Your task to perform on an android device: What is the news today? Image 0: 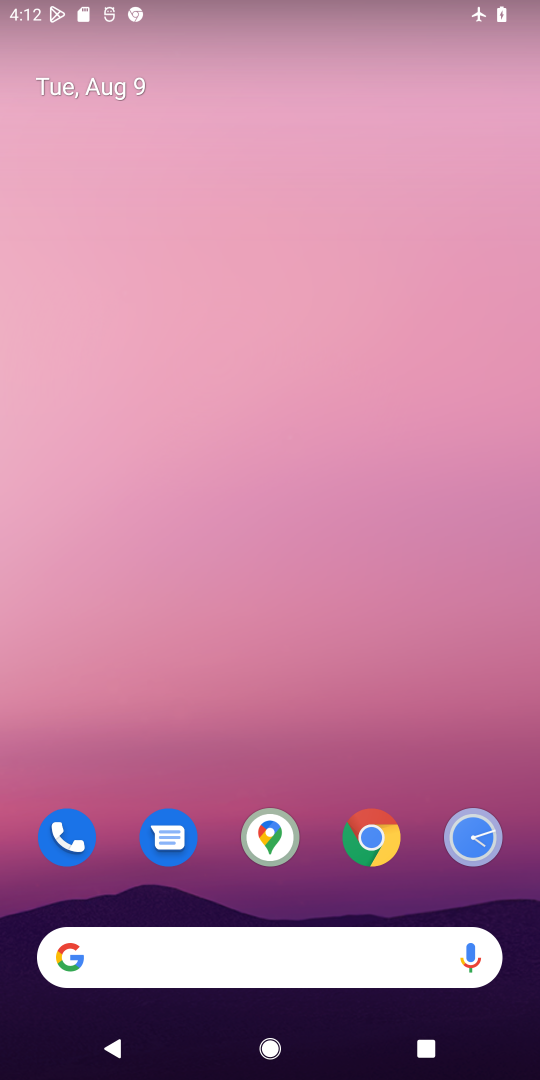
Step 0: drag from (247, 851) to (342, 224)
Your task to perform on an android device: What is the news today? Image 1: 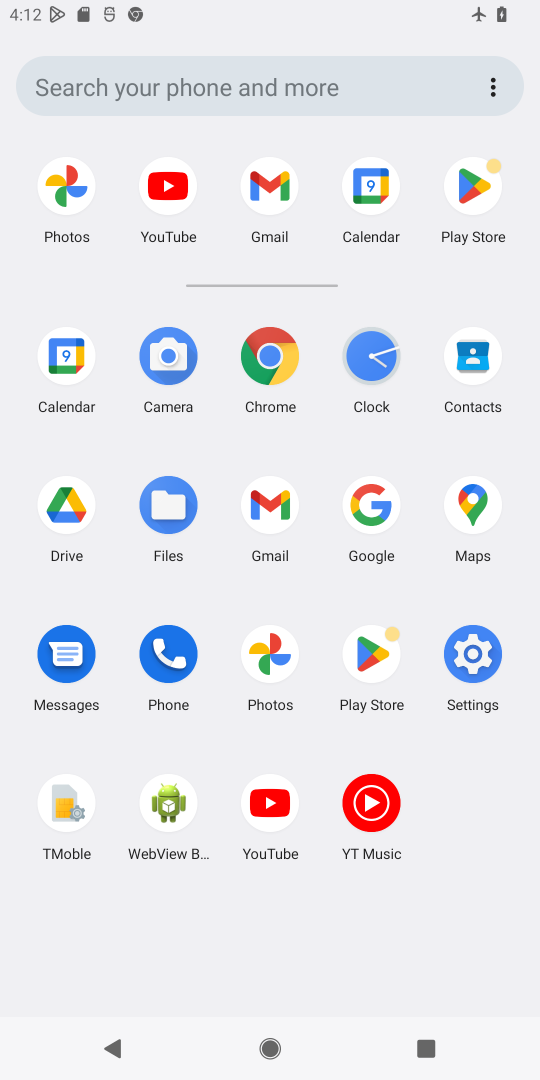
Step 1: click (277, 361)
Your task to perform on an android device: What is the news today? Image 2: 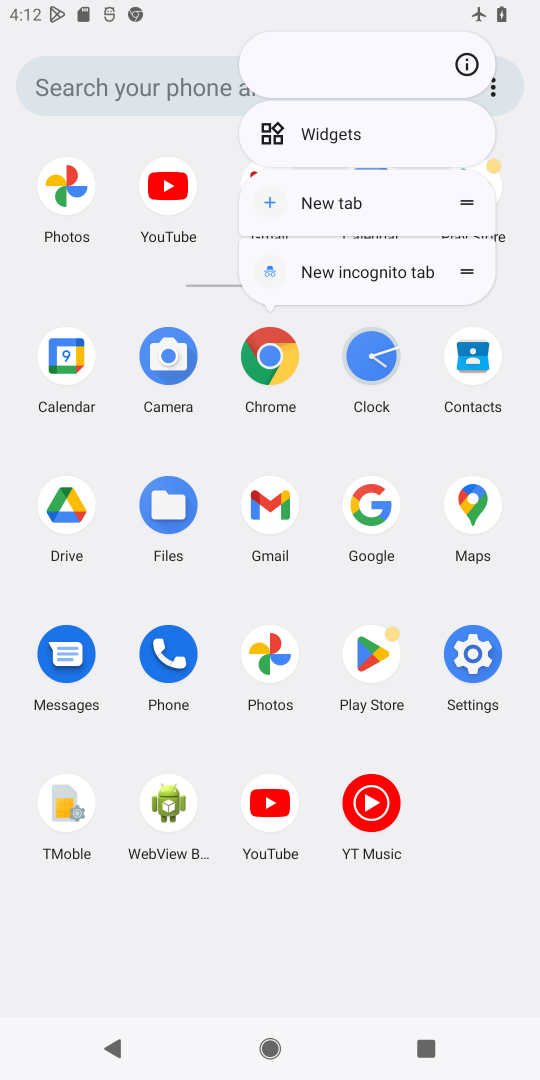
Step 2: click (277, 361)
Your task to perform on an android device: What is the news today? Image 3: 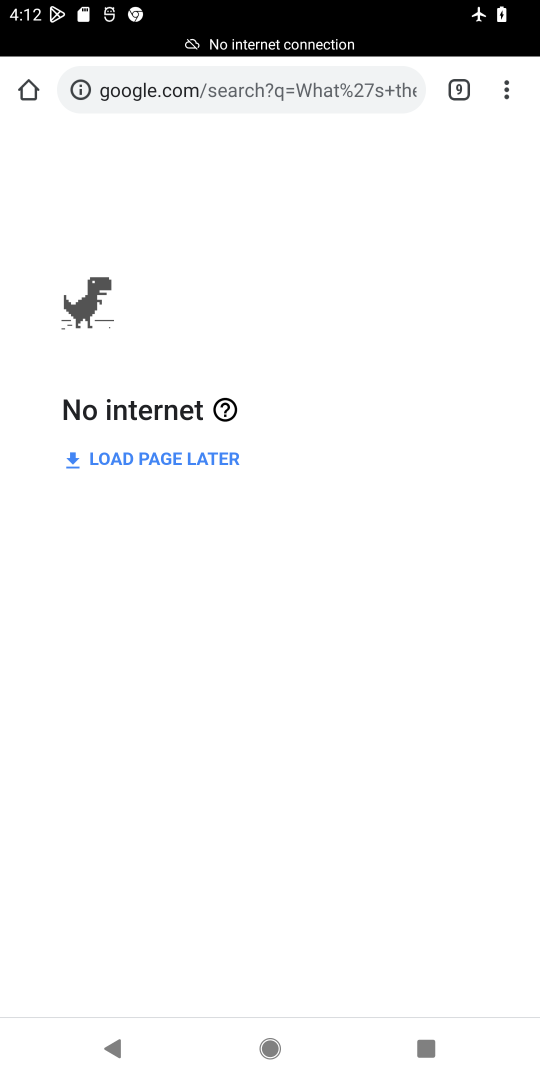
Step 3: click (516, 82)
Your task to perform on an android device: What is the news today? Image 4: 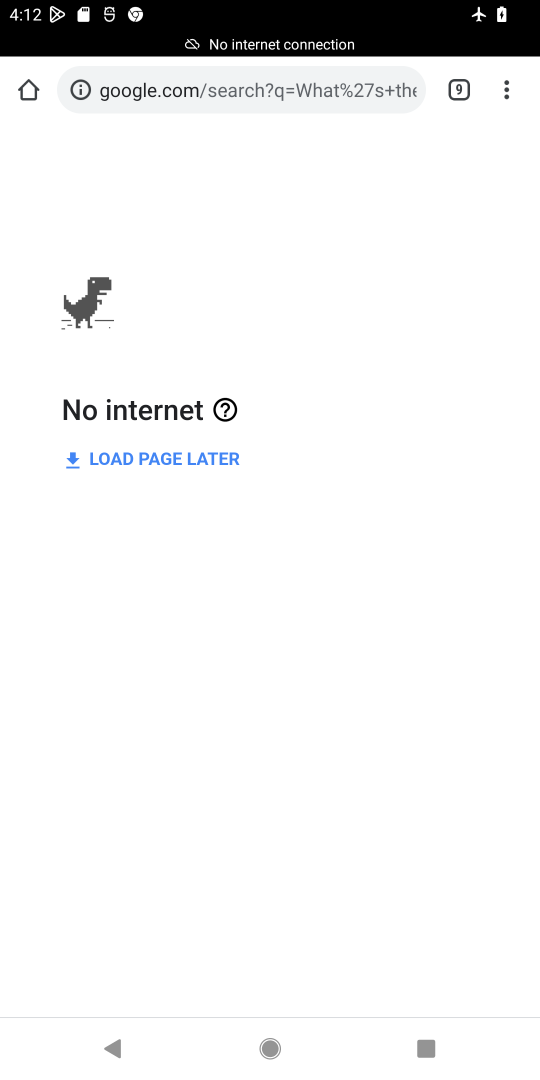
Step 4: click (502, 100)
Your task to perform on an android device: What is the news today? Image 5: 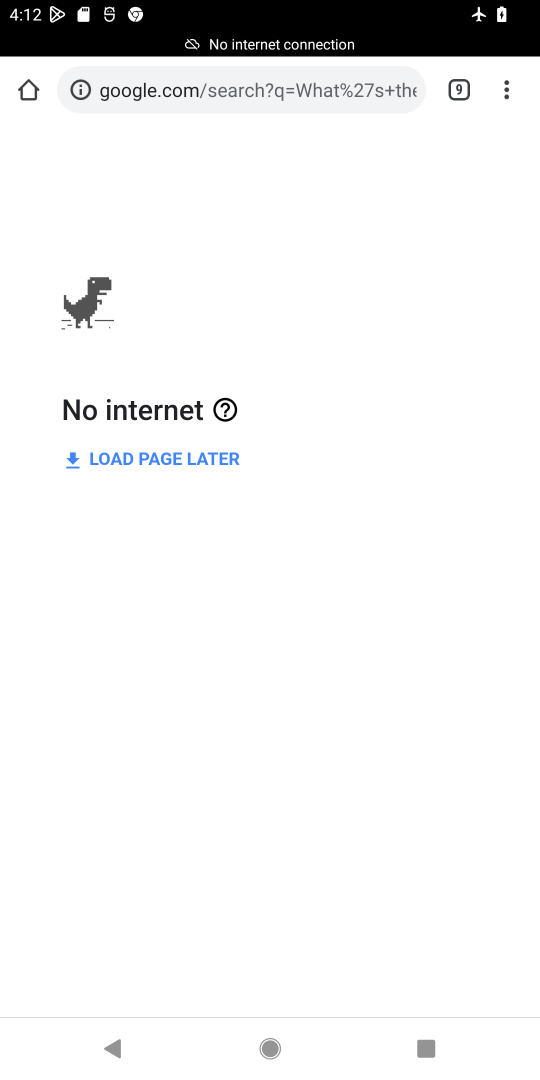
Step 5: click (502, 100)
Your task to perform on an android device: What is the news today? Image 6: 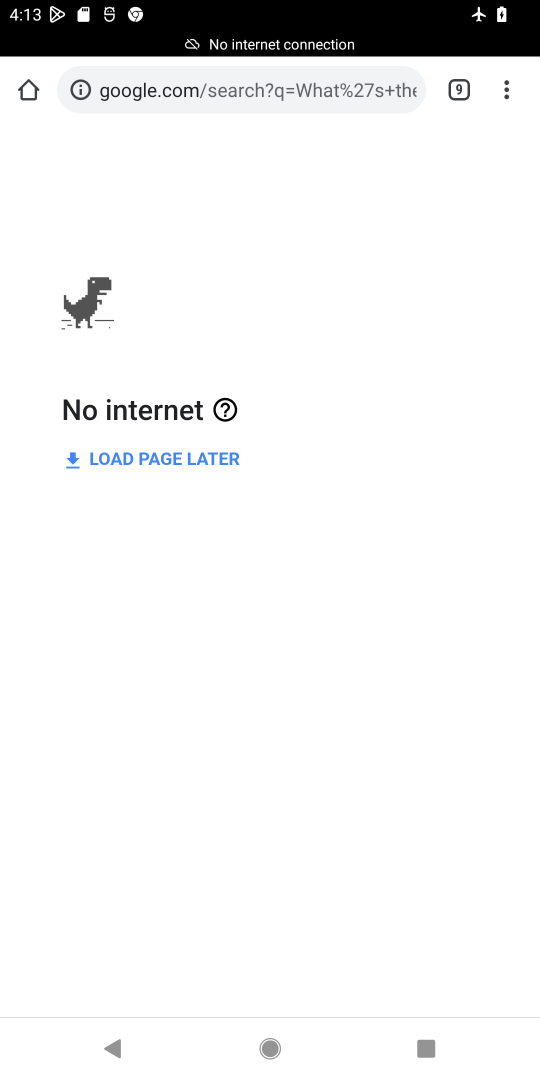
Step 6: click (502, 100)
Your task to perform on an android device: What is the news today? Image 7: 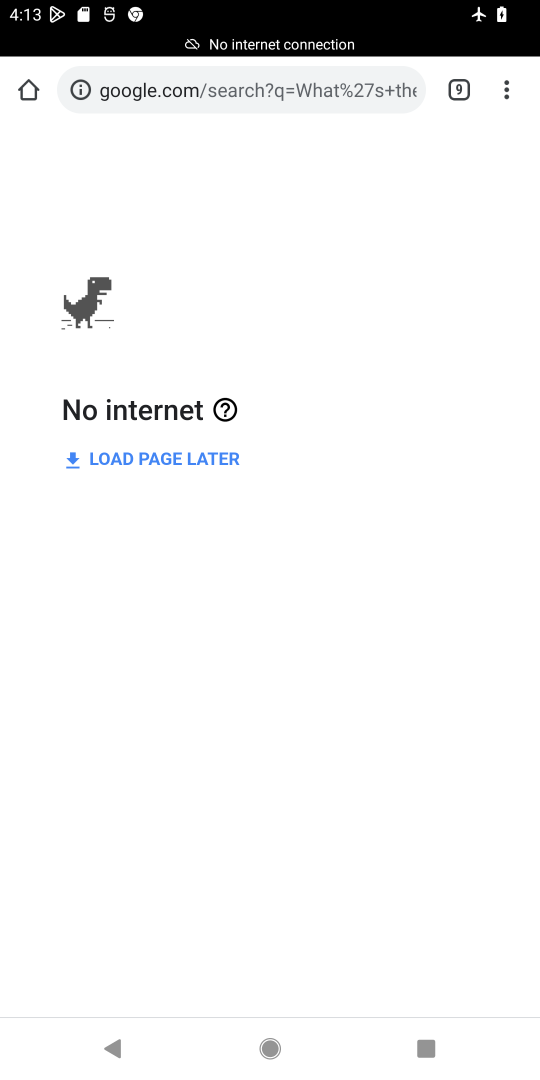
Step 7: click (503, 93)
Your task to perform on an android device: What is the news today? Image 8: 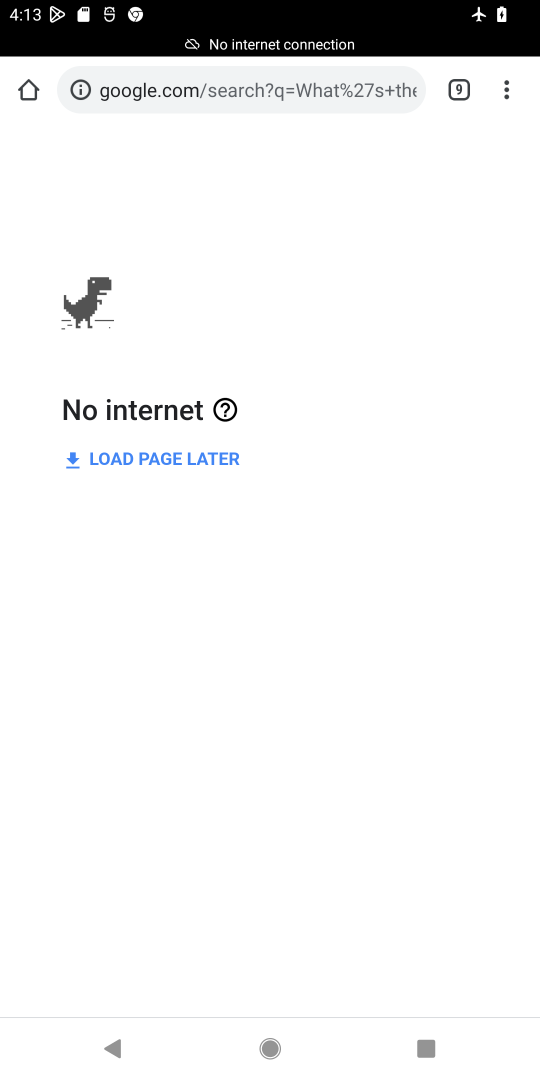
Step 8: click (503, 93)
Your task to perform on an android device: What is the news today? Image 9: 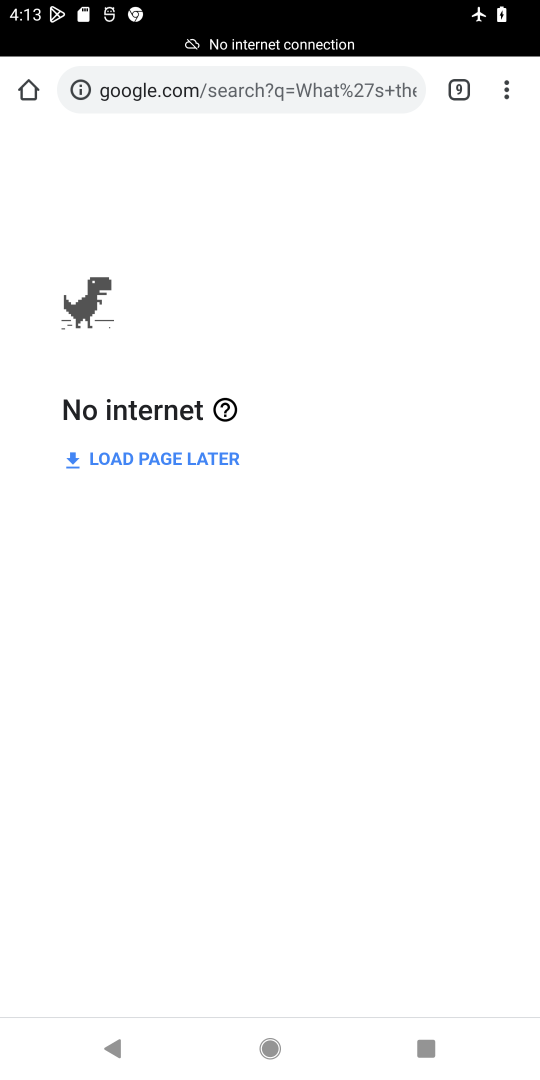
Step 9: click (503, 93)
Your task to perform on an android device: What is the news today? Image 10: 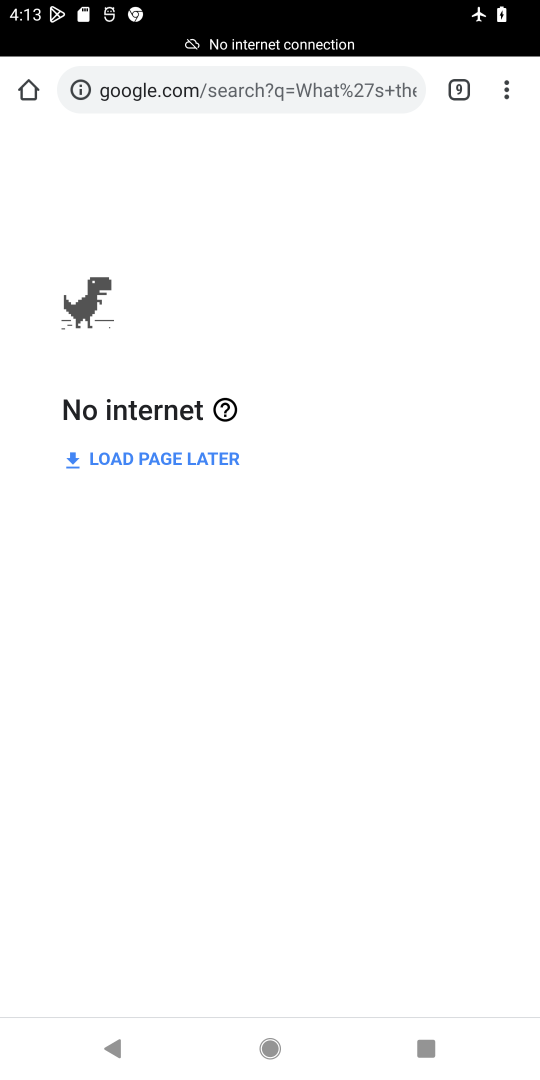
Step 10: click (503, 93)
Your task to perform on an android device: What is the news today? Image 11: 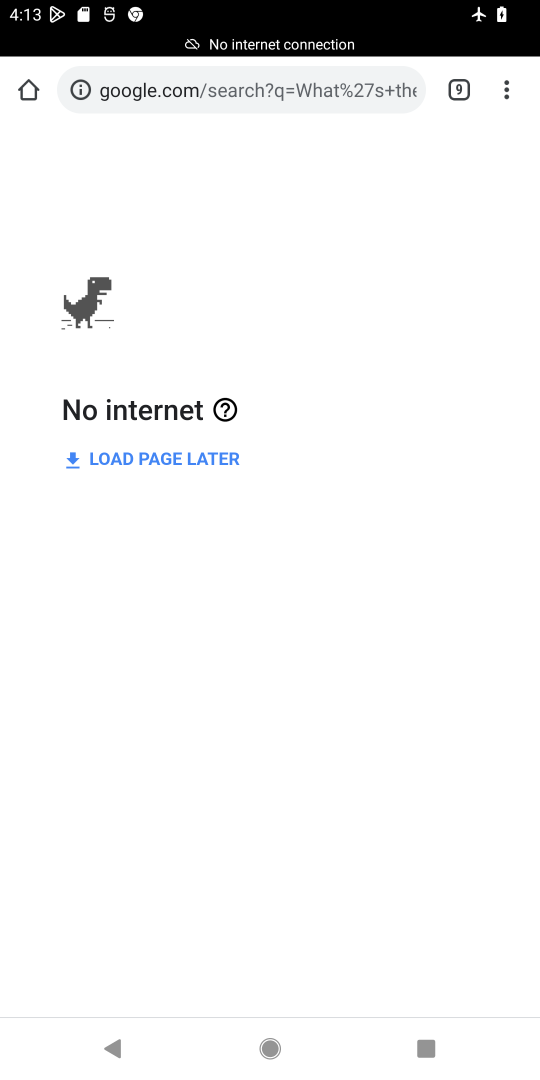
Step 11: click (498, 97)
Your task to perform on an android device: What is the news today? Image 12: 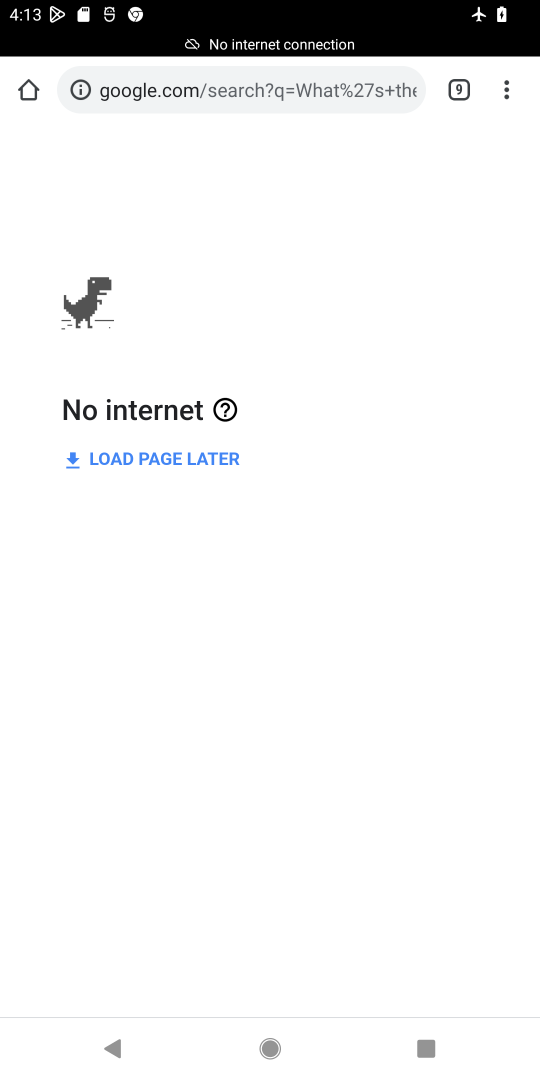
Step 12: click (498, 97)
Your task to perform on an android device: What is the news today? Image 13: 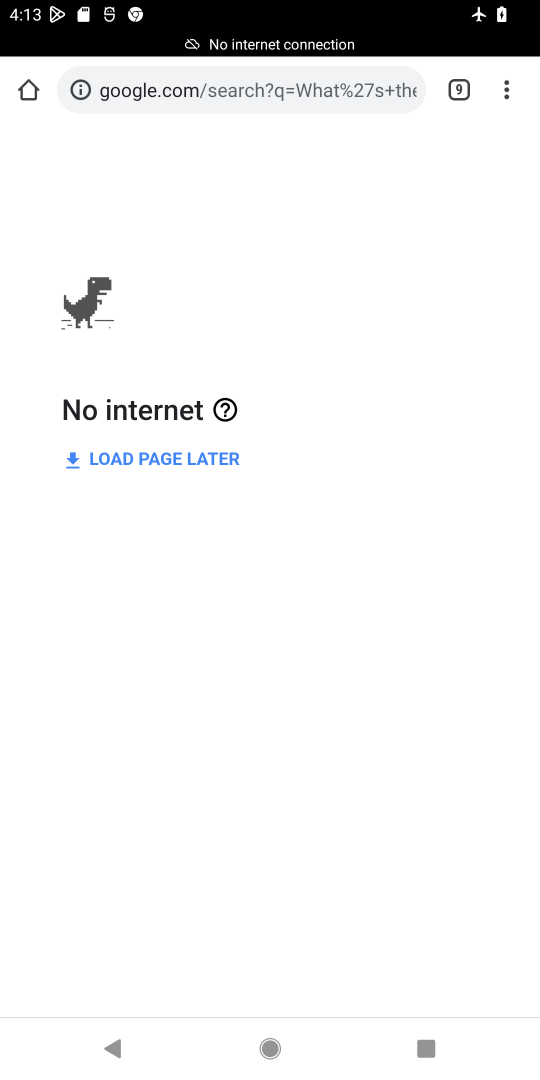
Step 13: click (498, 97)
Your task to perform on an android device: What is the news today? Image 14: 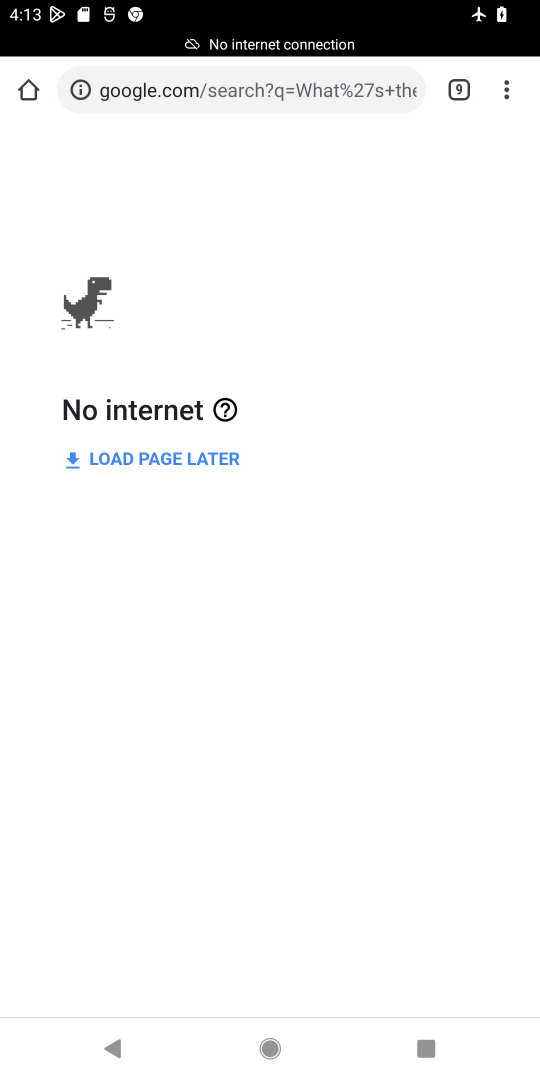
Step 14: click (498, 92)
Your task to perform on an android device: What is the news today? Image 15: 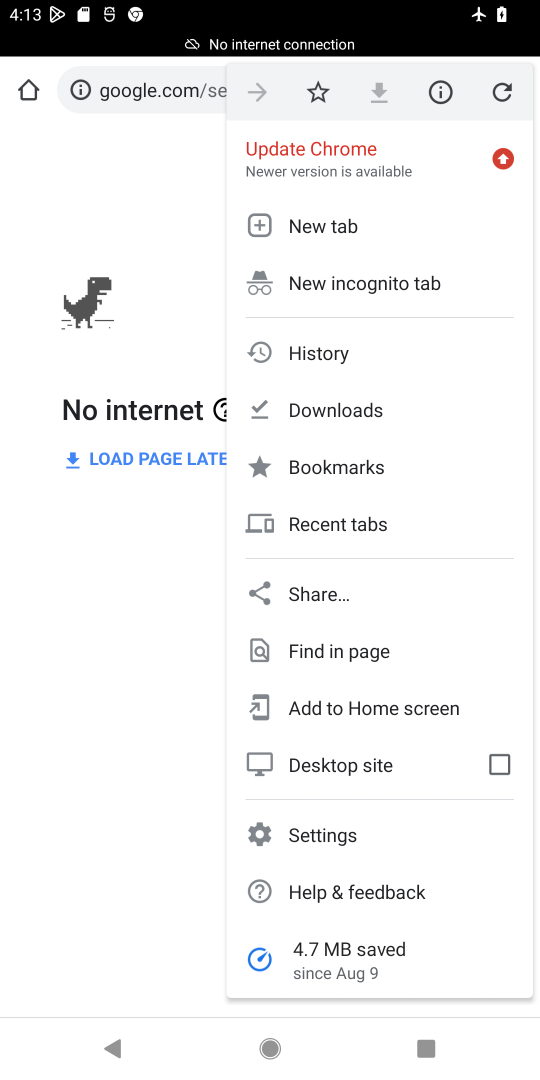
Step 15: click (291, 219)
Your task to perform on an android device: What is the news today? Image 16: 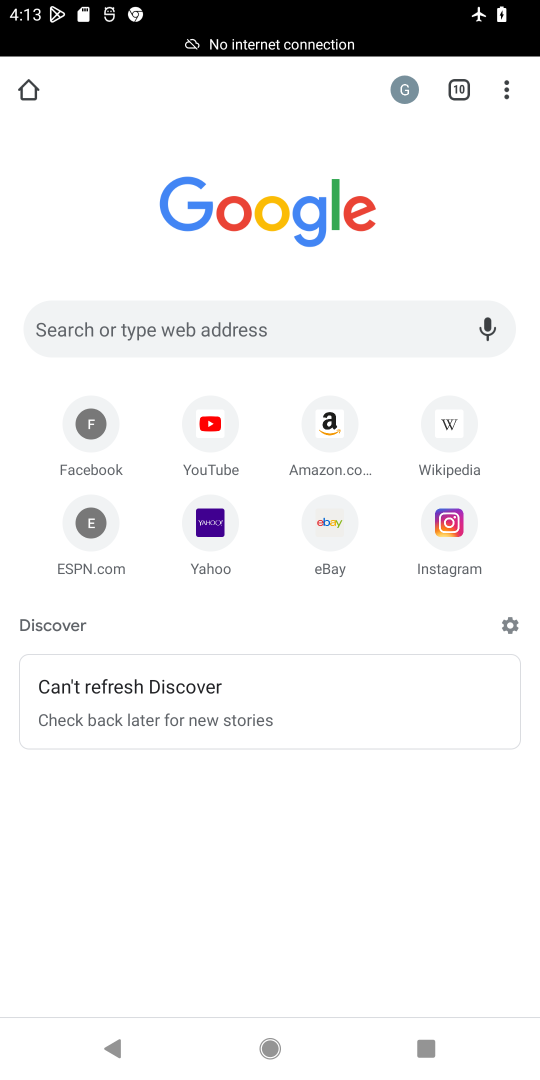
Step 16: click (299, 313)
Your task to perform on an android device: What is the news today? Image 17: 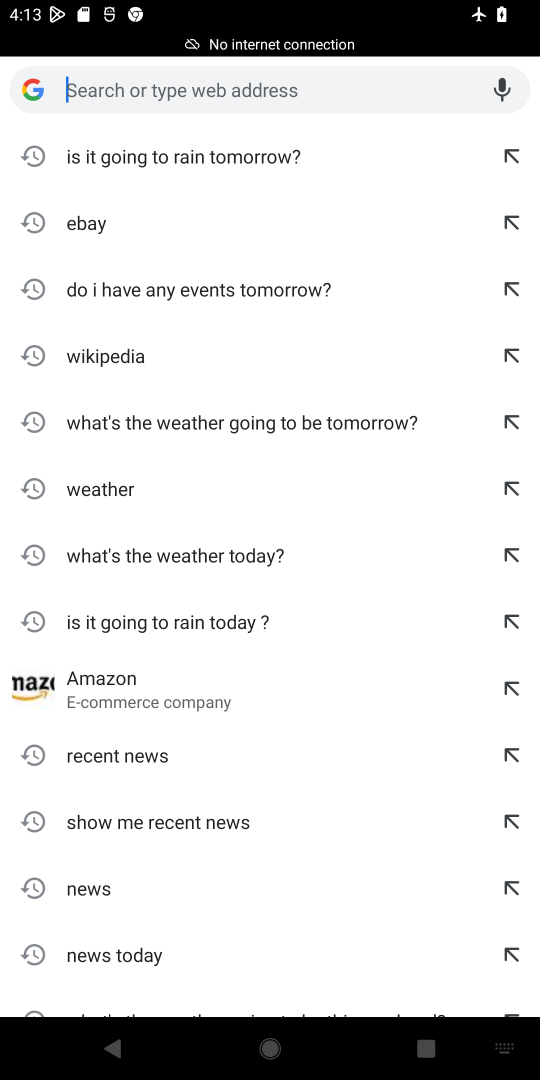
Step 17: type "What is the news today? "
Your task to perform on an android device: What is the news today? Image 18: 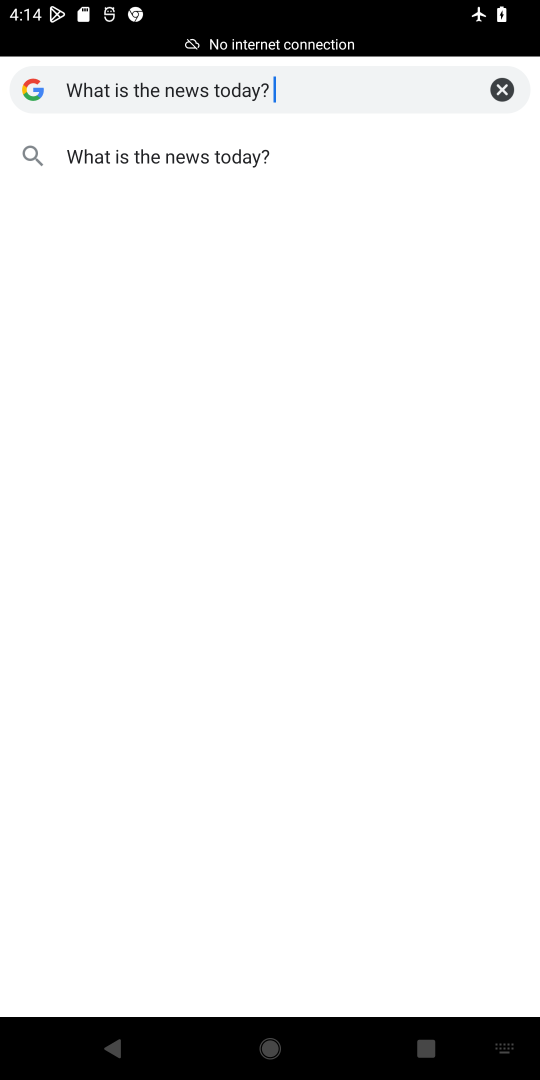
Step 18: click (109, 136)
Your task to perform on an android device: What is the news today? Image 19: 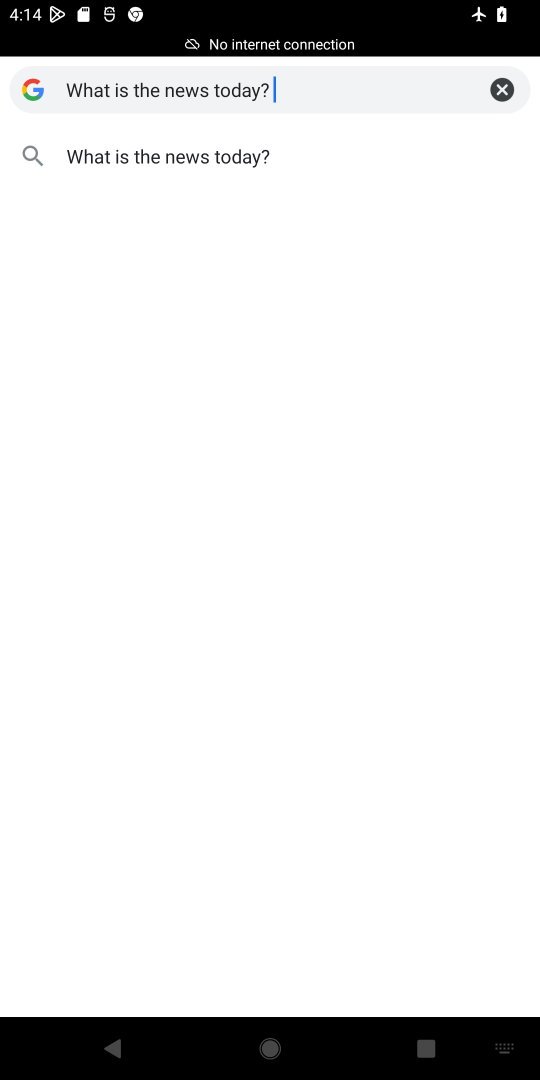
Step 19: task complete